Your task to perform on an android device: Go to Wikipedia Image 0: 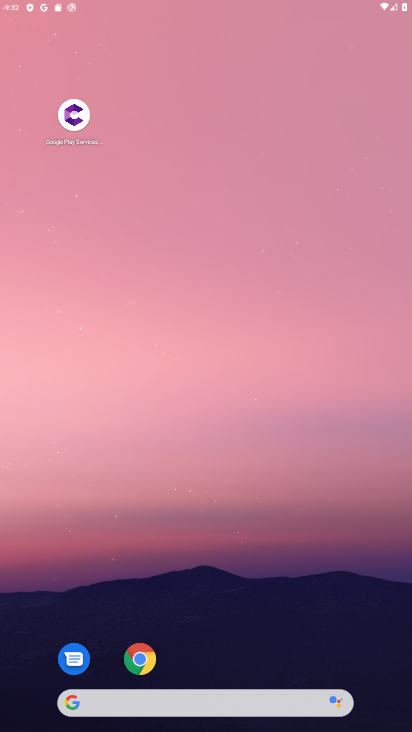
Step 0: press home button
Your task to perform on an android device: Go to Wikipedia Image 1: 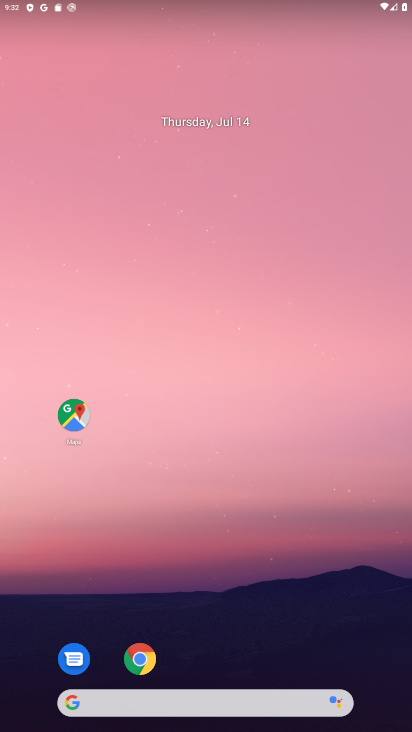
Step 1: drag from (340, 609) to (269, 122)
Your task to perform on an android device: Go to Wikipedia Image 2: 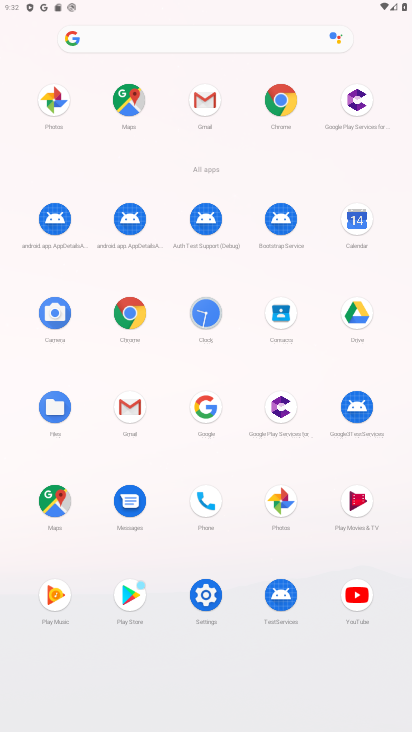
Step 2: click (128, 306)
Your task to perform on an android device: Go to Wikipedia Image 3: 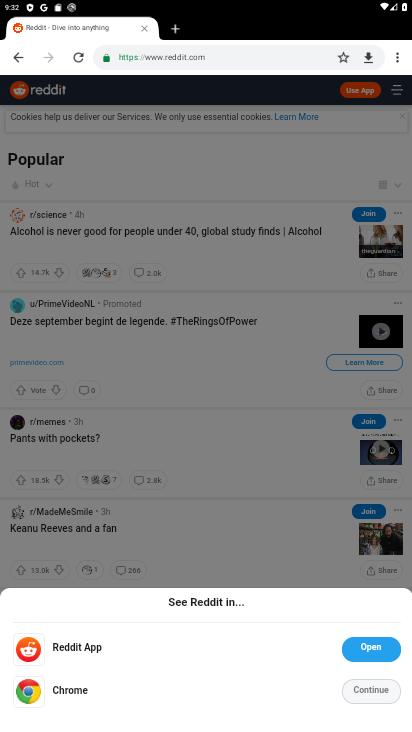
Step 3: click (286, 64)
Your task to perform on an android device: Go to Wikipedia Image 4: 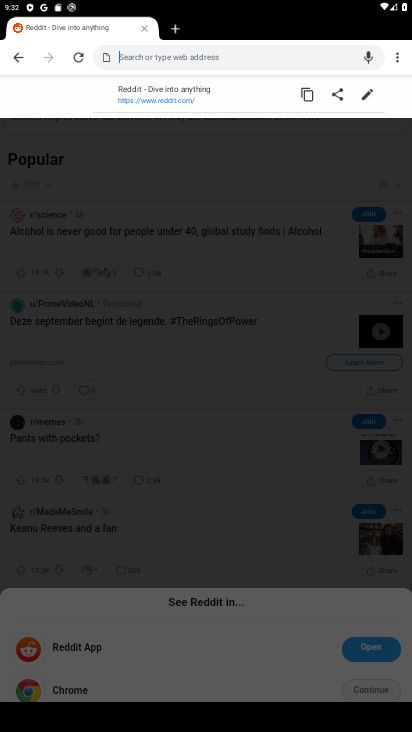
Step 4: type "Wikipedia"
Your task to perform on an android device: Go to Wikipedia Image 5: 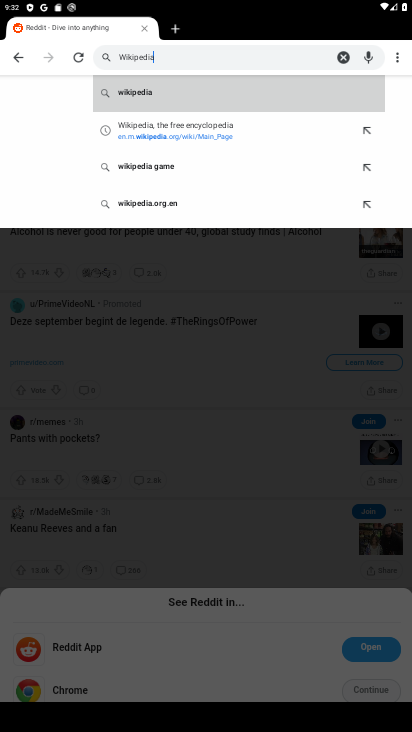
Step 5: click (145, 102)
Your task to perform on an android device: Go to Wikipedia Image 6: 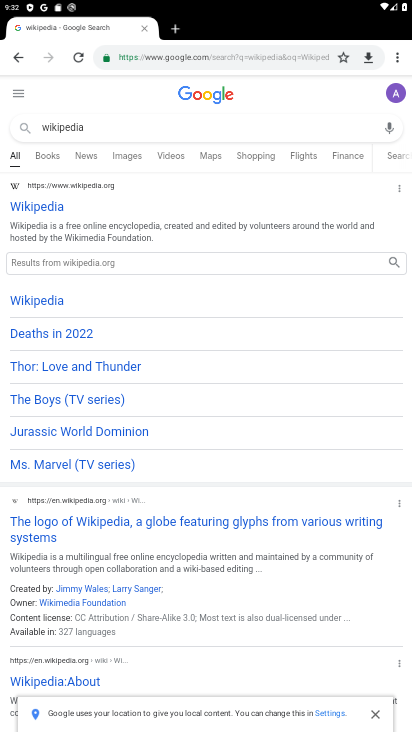
Step 6: click (22, 200)
Your task to perform on an android device: Go to Wikipedia Image 7: 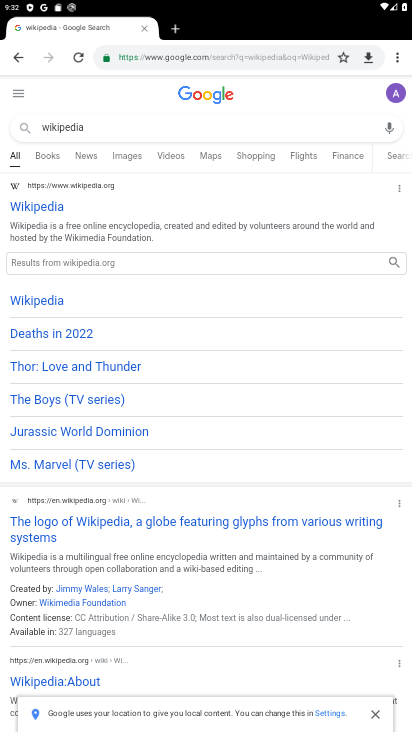
Step 7: click (19, 209)
Your task to perform on an android device: Go to Wikipedia Image 8: 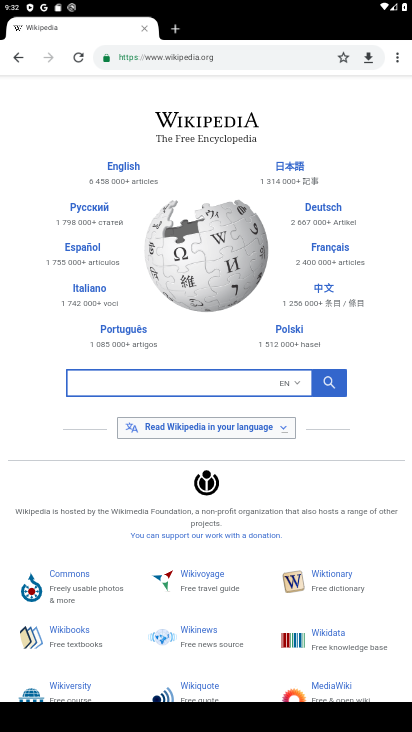
Step 8: task complete